Your task to perform on an android device: Is it going to rain today? Image 0: 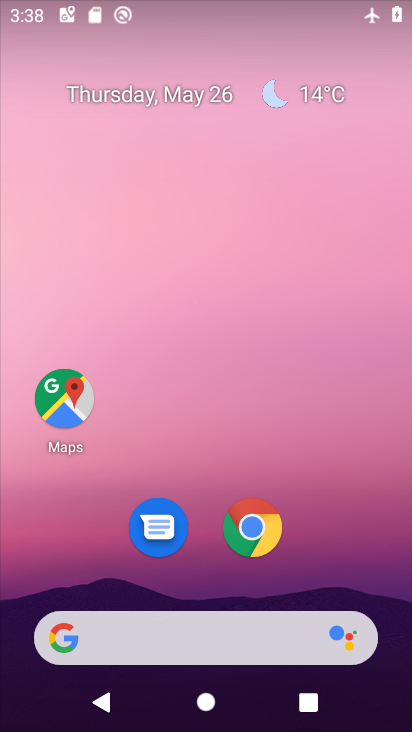
Step 0: click (260, 534)
Your task to perform on an android device: Is it going to rain today? Image 1: 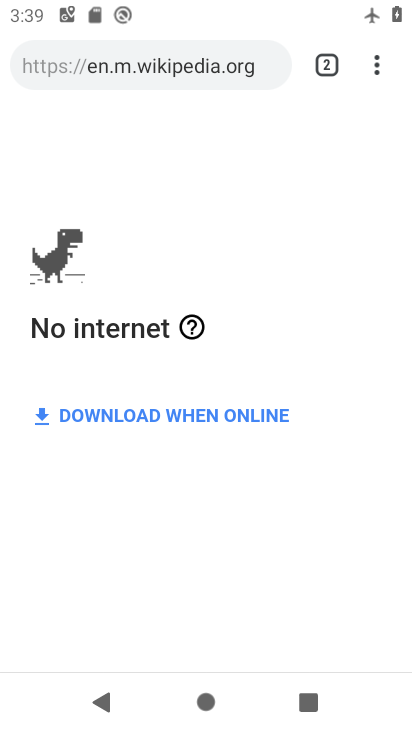
Step 1: click (250, 76)
Your task to perform on an android device: Is it going to rain today? Image 2: 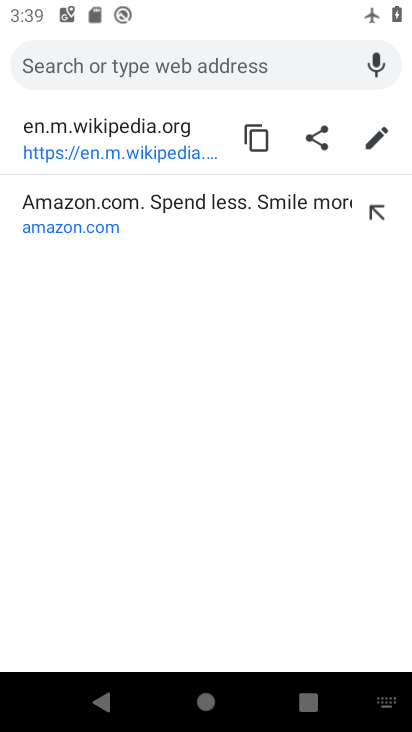
Step 2: click (157, 66)
Your task to perform on an android device: Is it going to rain today? Image 3: 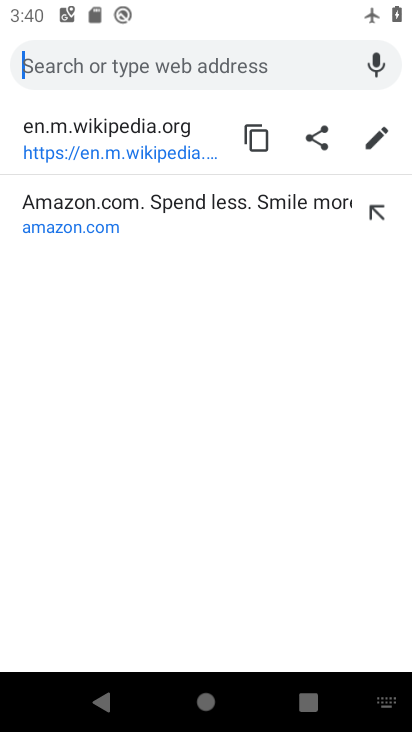
Step 3: type "Is it going to rain today?"
Your task to perform on an android device: Is it going to rain today? Image 4: 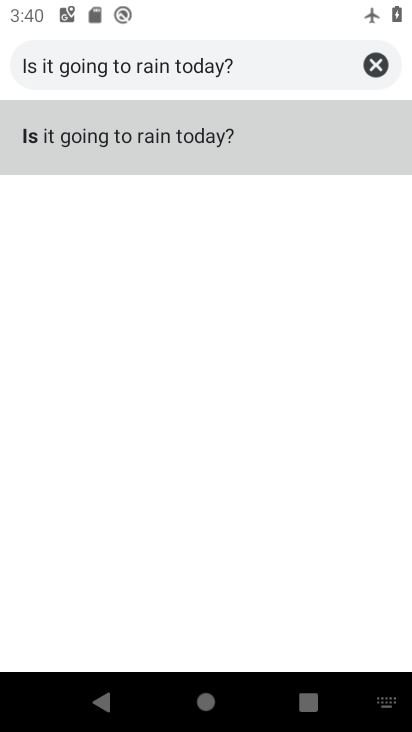
Step 4: click (208, 142)
Your task to perform on an android device: Is it going to rain today? Image 5: 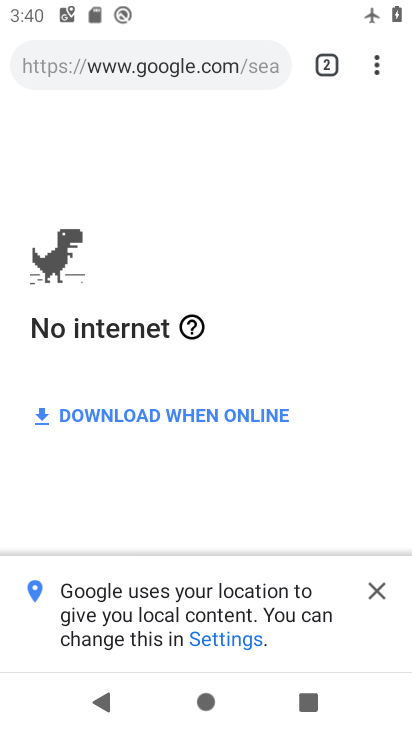
Step 5: task complete